Your task to perform on an android device: open app "Skype" (install if not already installed) Image 0: 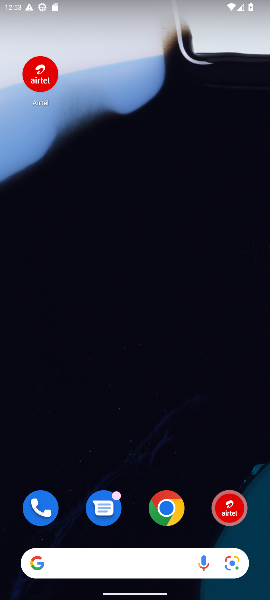
Step 0: drag from (113, 553) to (61, 273)
Your task to perform on an android device: open app "Skype" (install if not already installed) Image 1: 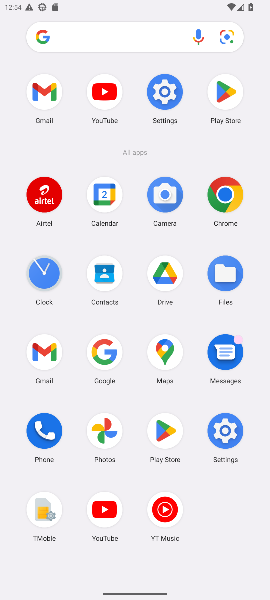
Step 1: click (168, 434)
Your task to perform on an android device: open app "Skype" (install if not already installed) Image 2: 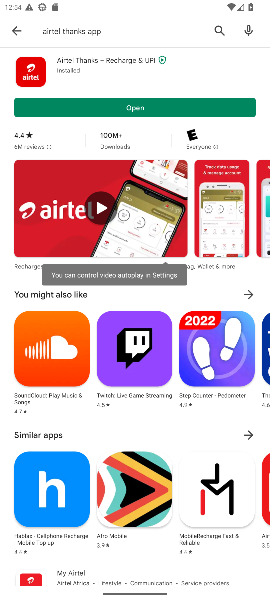
Step 2: click (213, 28)
Your task to perform on an android device: open app "Skype" (install if not already installed) Image 3: 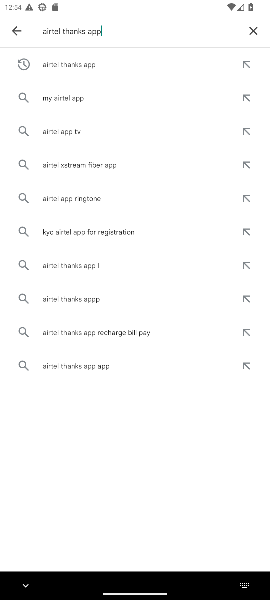
Step 3: click (252, 29)
Your task to perform on an android device: open app "Skype" (install if not already installed) Image 4: 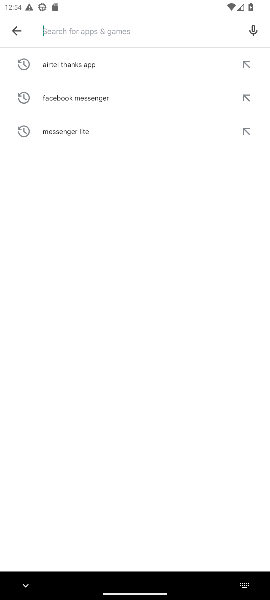
Step 4: type "skype"
Your task to perform on an android device: open app "Skype" (install if not already installed) Image 5: 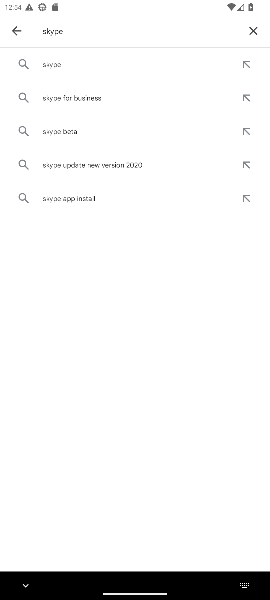
Step 5: click (66, 62)
Your task to perform on an android device: open app "Skype" (install if not already installed) Image 6: 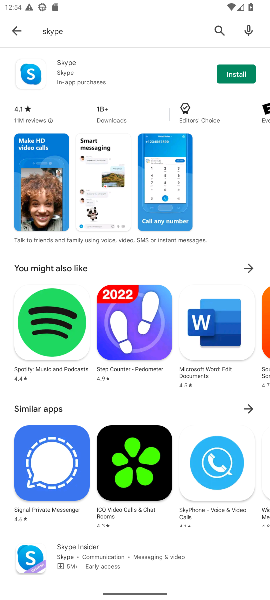
Step 6: click (212, 68)
Your task to perform on an android device: open app "Skype" (install if not already installed) Image 7: 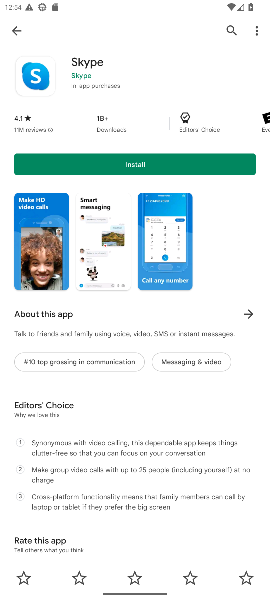
Step 7: click (150, 163)
Your task to perform on an android device: open app "Skype" (install if not already installed) Image 8: 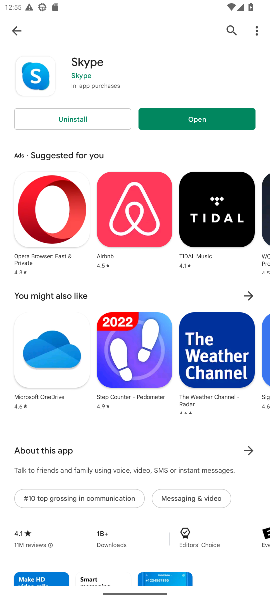
Step 8: click (185, 125)
Your task to perform on an android device: open app "Skype" (install if not already installed) Image 9: 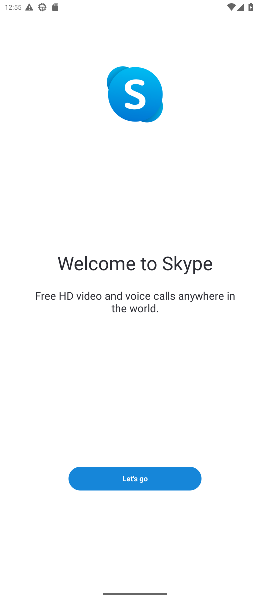
Step 9: task complete